Your task to perform on an android device: see creations saved in the google photos Image 0: 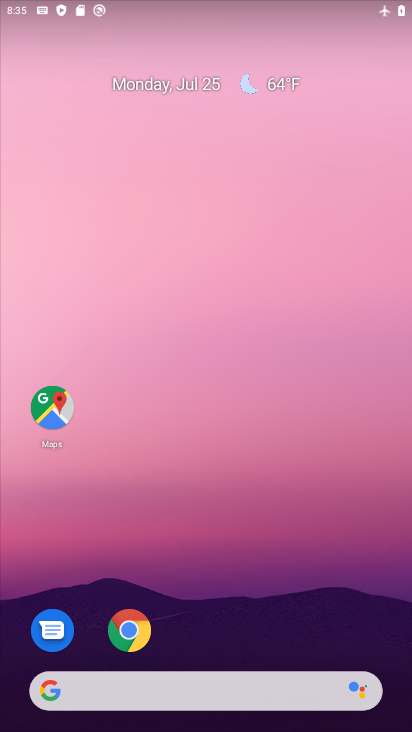
Step 0: drag from (336, 663) to (282, 249)
Your task to perform on an android device: see creations saved in the google photos Image 1: 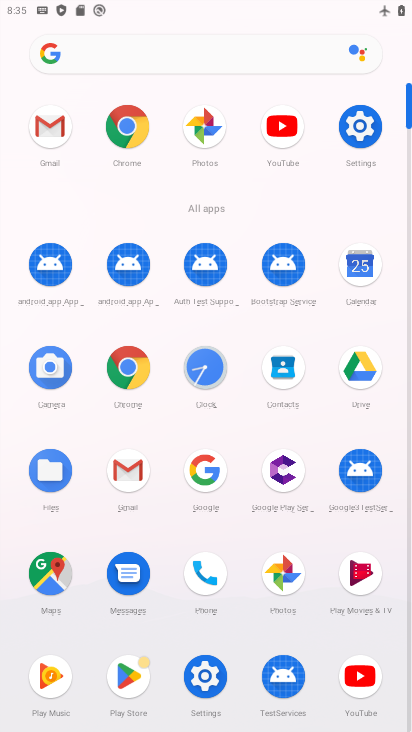
Step 1: click (283, 570)
Your task to perform on an android device: see creations saved in the google photos Image 2: 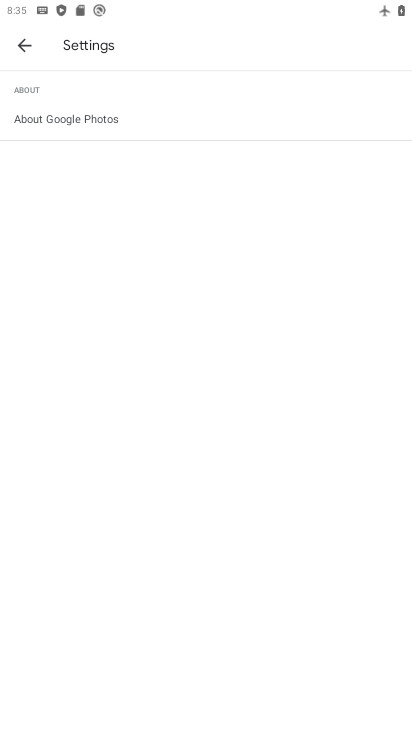
Step 2: press back button
Your task to perform on an android device: see creations saved in the google photos Image 3: 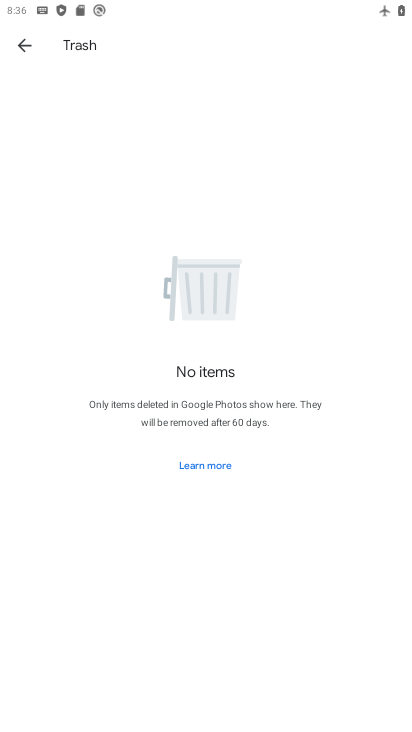
Step 3: press back button
Your task to perform on an android device: see creations saved in the google photos Image 4: 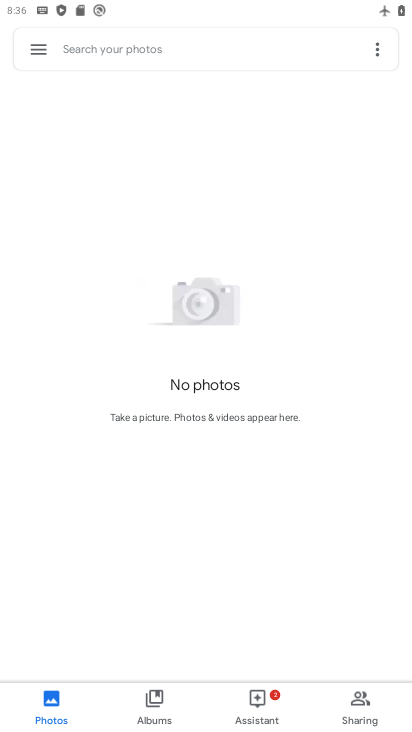
Step 4: click (157, 703)
Your task to perform on an android device: see creations saved in the google photos Image 5: 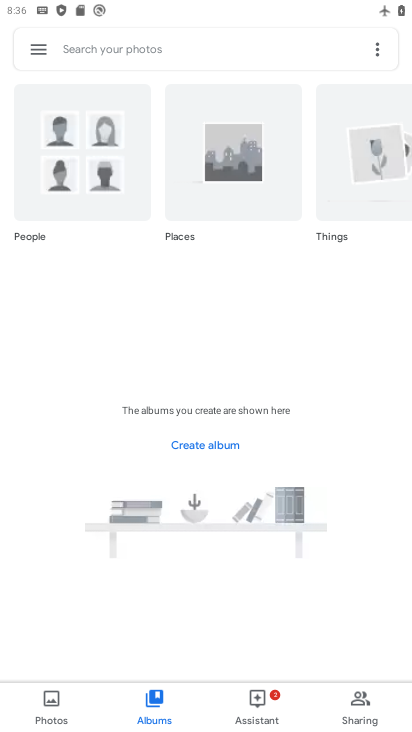
Step 5: task complete